Your task to perform on an android device: toggle javascript in the chrome app Image 0: 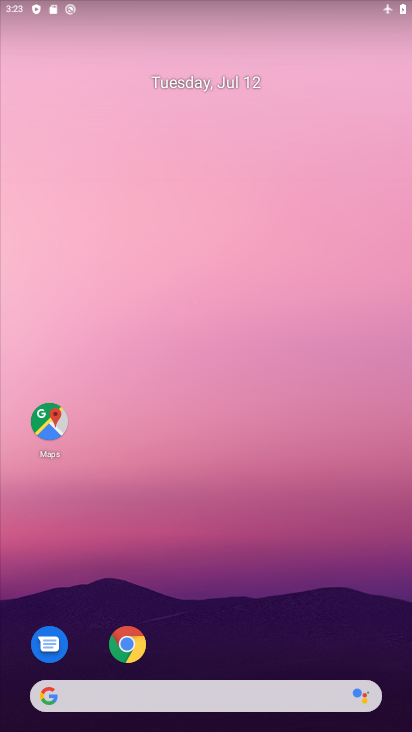
Step 0: drag from (295, 623) to (250, 146)
Your task to perform on an android device: toggle javascript in the chrome app Image 1: 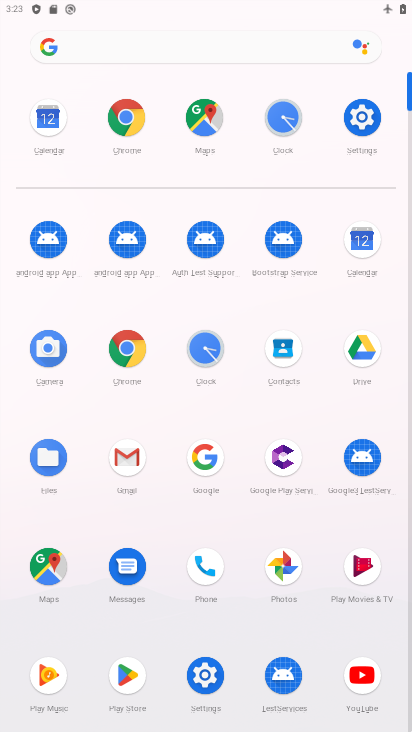
Step 1: click (128, 346)
Your task to perform on an android device: toggle javascript in the chrome app Image 2: 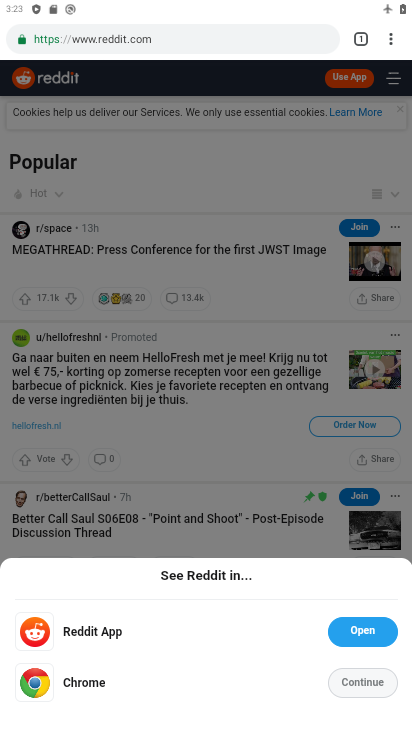
Step 2: click (391, 35)
Your task to perform on an android device: toggle javascript in the chrome app Image 3: 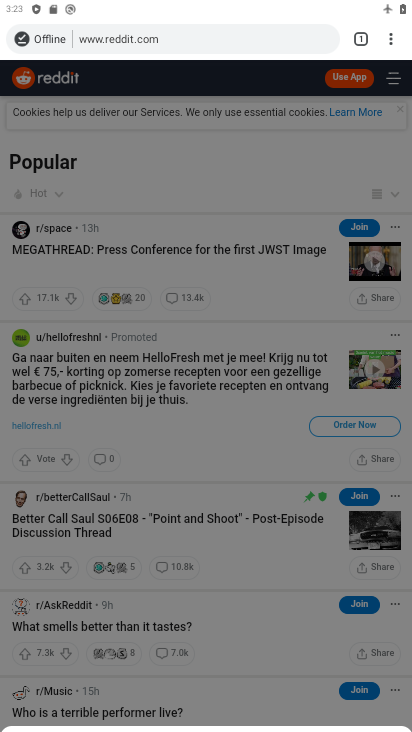
Step 3: drag from (391, 35) to (265, 435)
Your task to perform on an android device: toggle javascript in the chrome app Image 4: 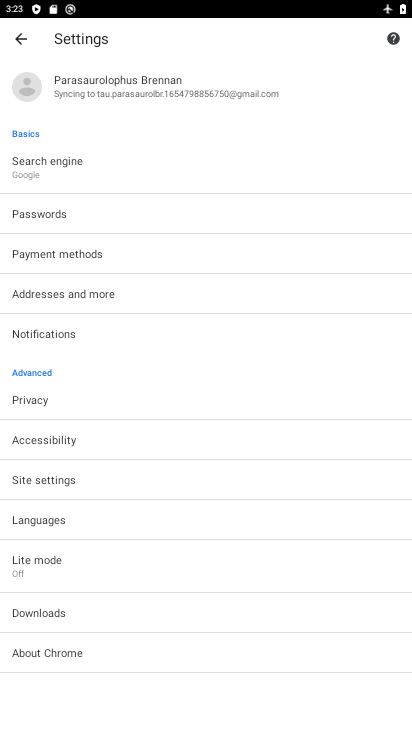
Step 4: click (67, 479)
Your task to perform on an android device: toggle javascript in the chrome app Image 5: 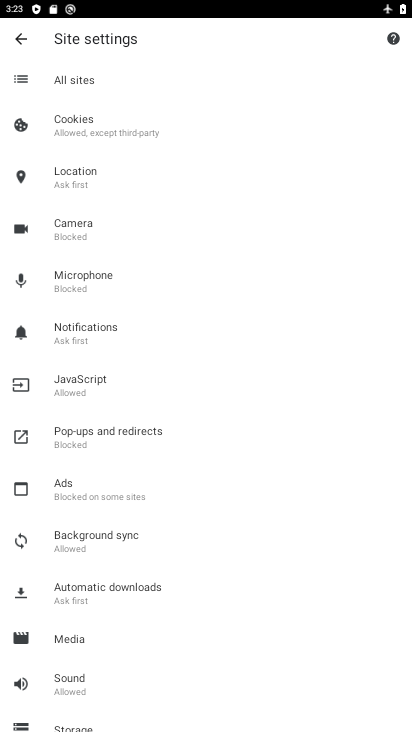
Step 5: click (88, 392)
Your task to perform on an android device: toggle javascript in the chrome app Image 6: 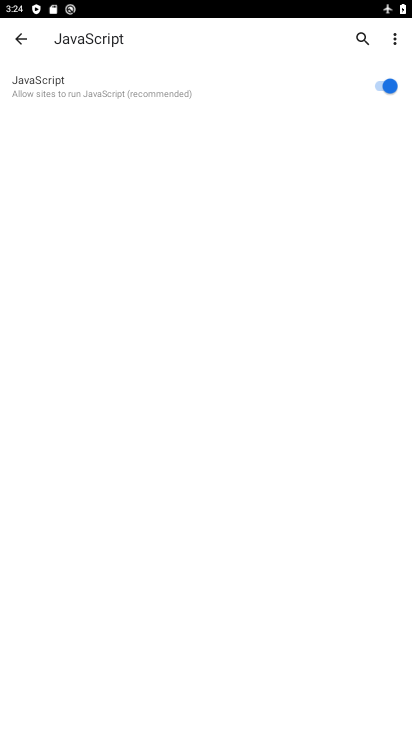
Step 6: click (380, 84)
Your task to perform on an android device: toggle javascript in the chrome app Image 7: 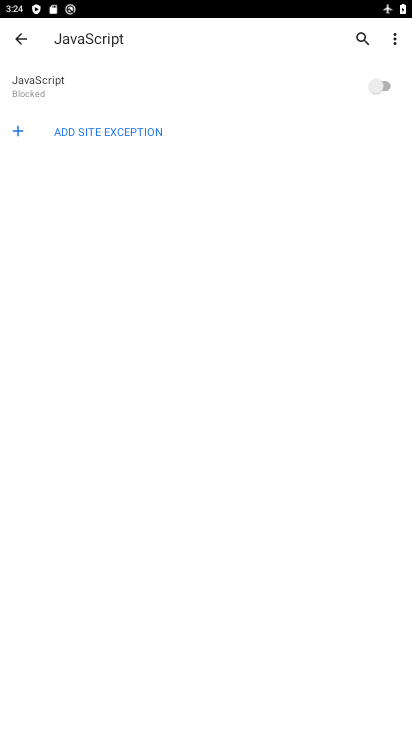
Step 7: task complete